Your task to perform on an android device: allow notifications from all sites in the chrome app Image 0: 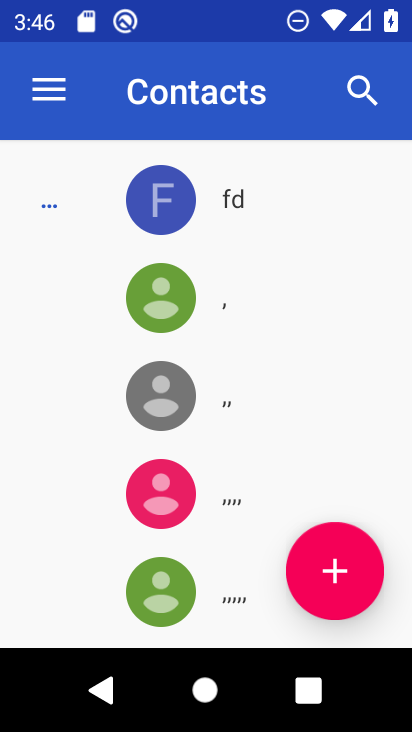
Step 0: press home button
Your task to perform on an android device: allow notifications from all sites in the chrome app Image 1: 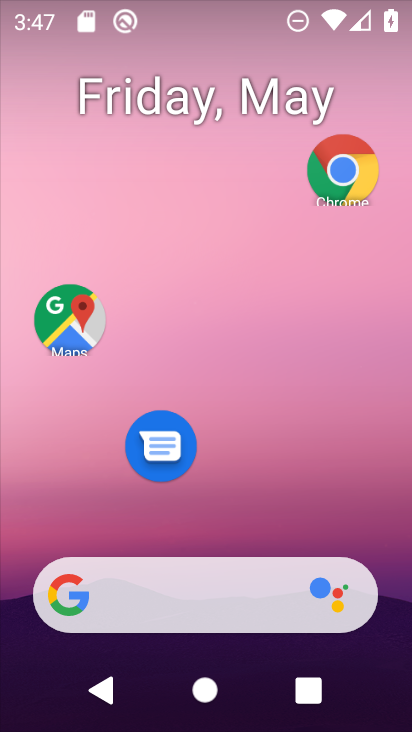
Step 1: drag from (265, 526) to (297, 12)
Your task to perform on an android device: allow notifications from all sites in the chrome app Image 2: 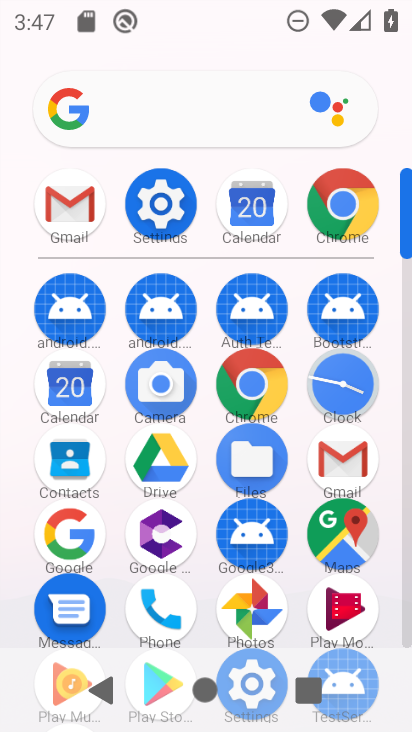
Step 2: click (245, 377)
Your task to perform on an android device: allow notifications from all sites in the chrome app Image 3: 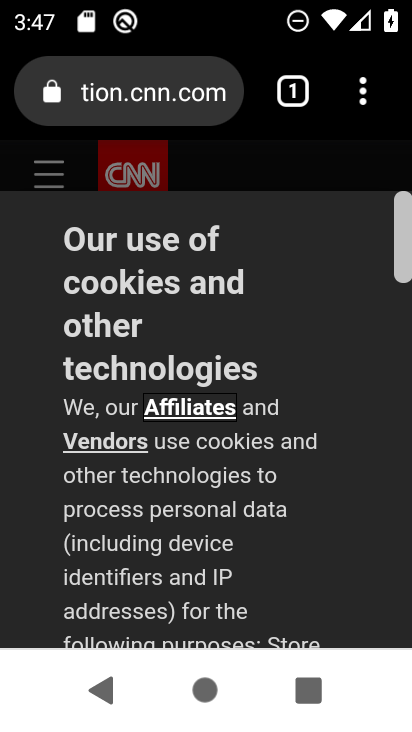
Step 3: drag from (356, 104) to (109, 471)
Your task to perform on an android device: allow notifications from all sites in the chrome app Image 4: 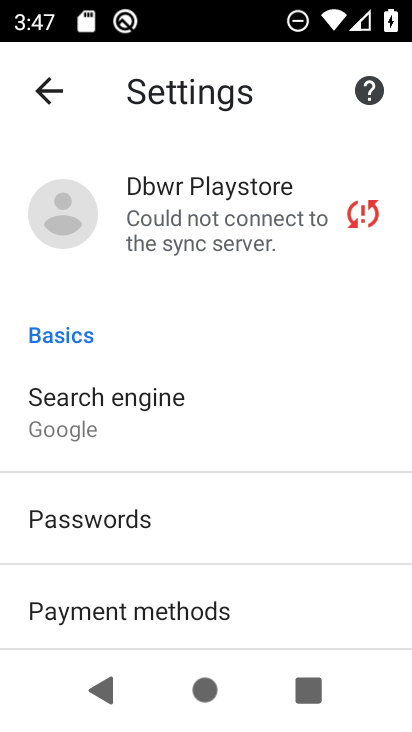
Step 4: drag from (240, 572) to (273, 242)
Your task to perform on an android device: allow notifications from all sites in the chrome app Image 5: 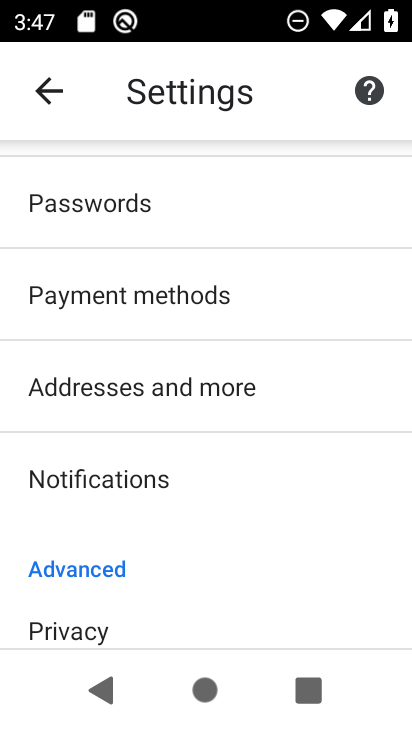
Step 5: drag from (248, 587) to (292, 222)
Your task to perform on an android device: allow notifications from all sites in the chrome app Image 6: 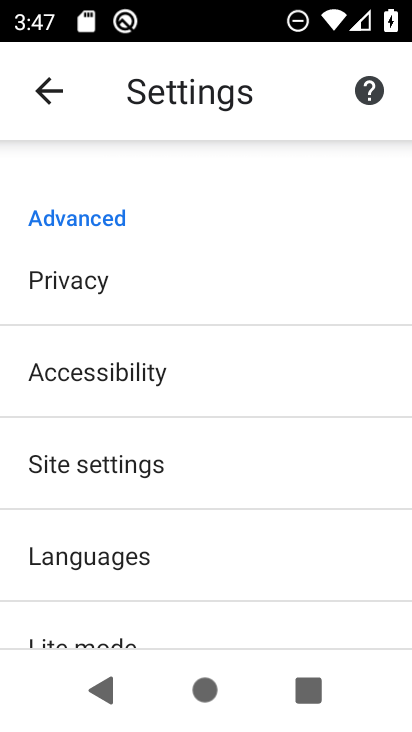
Step 6: click (124, 468)
Your task to perform on an android device: allow notifications from all sites in the chrome app Image 7: 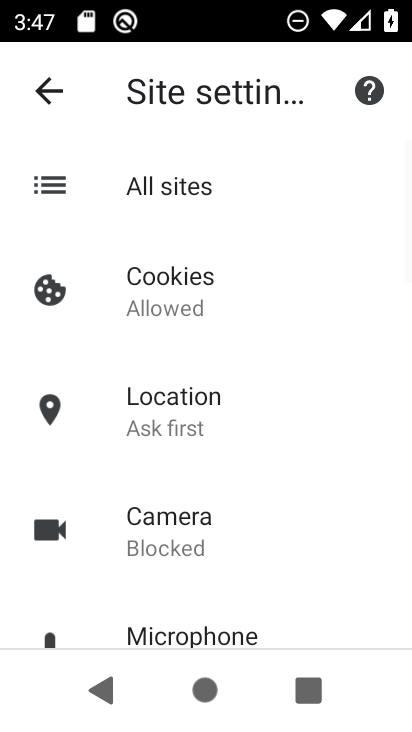
Step 7: click (166, 175)
Your task to perform on an android device: allow notifications from all sites in the chrome app Image 8: 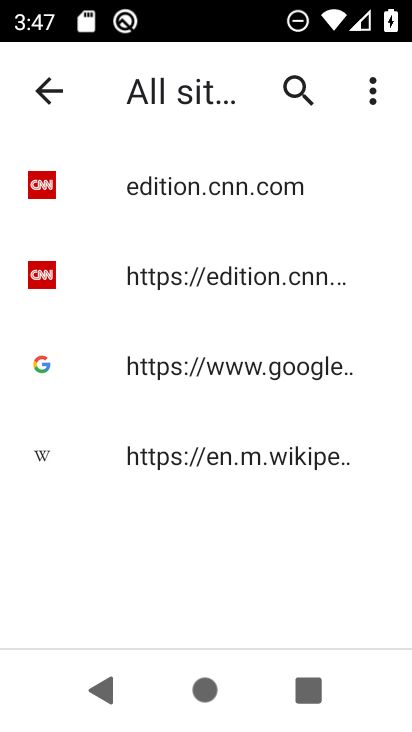
Step 8: click (166, 189)
Your task to perform on an android device: allow notifications from all sites in the chrome app Image 9: 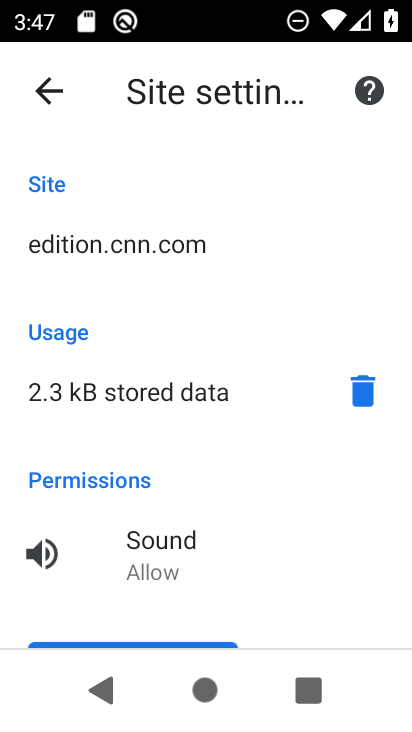
Step 9: drag from (245, 494) to (272, 262)
Your task to perform on an android device: allow notifications from all sites in the chrome app Image 10: 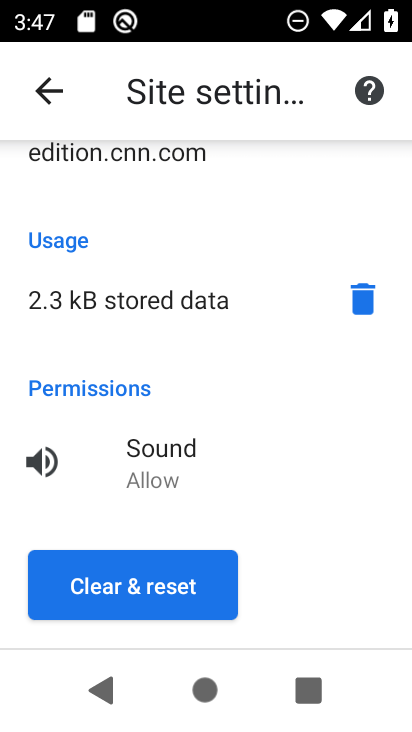
Step 10: drag from (265, 299) to (260, 465)
Your task to perform on an android device: allow notifications from all sites in the chrome app Image 11: 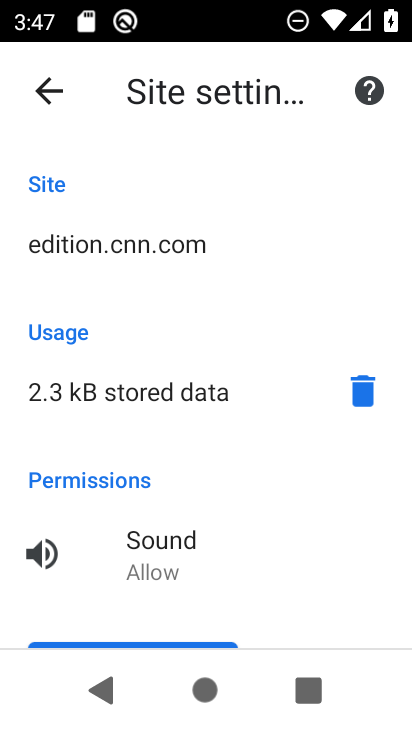
Step 11: click (53, 91)
Your task to perform on an android device: allow notifications from all sites in the chrome app Image 12: 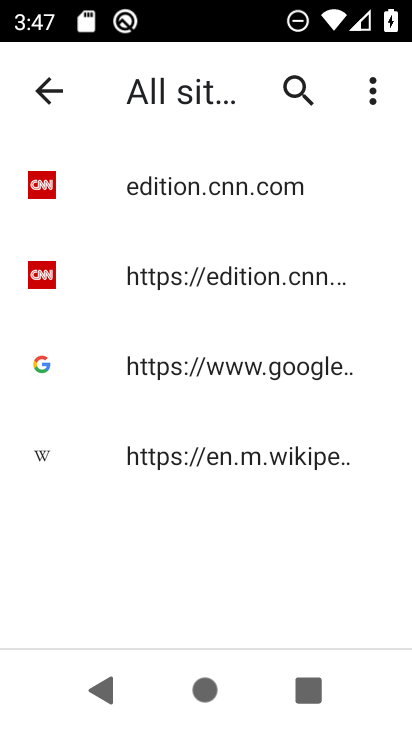
Step 12: click (222, 462)
Your task to perform on an android device: allow notifications from all sites in the chrome app Image 13: 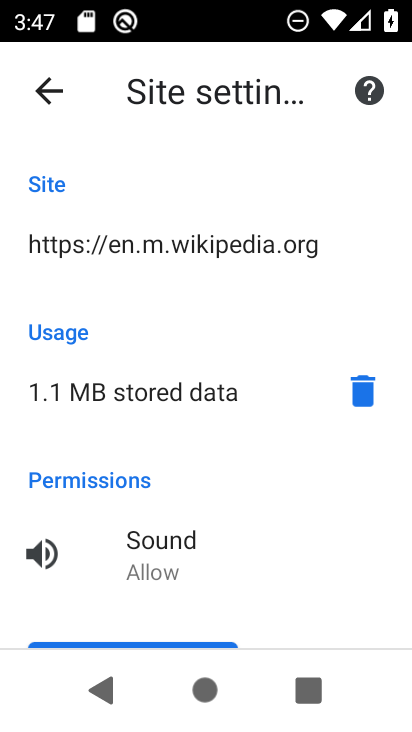
Step 13: click (51, 88)
Your task to perform on an android device: allow notifications from all sites in the chrome app Image 14: 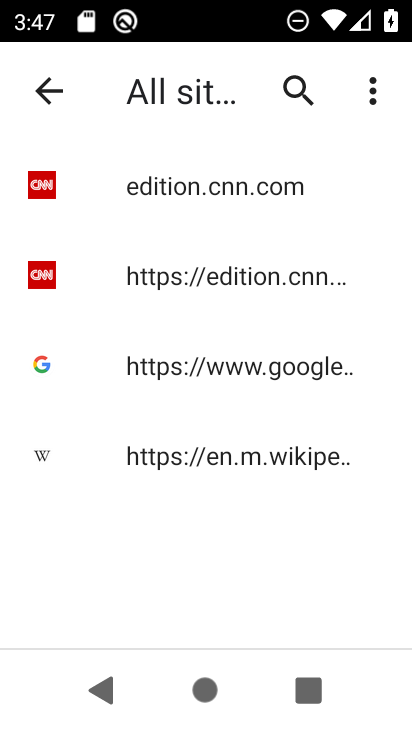
Step 14: click (200, 363)
Your task to perform on an android device: allow notifications from all sites in the chrome app Image 15: 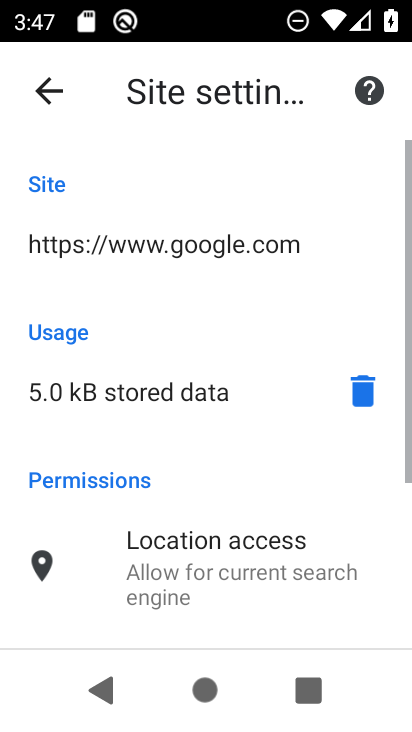
Step 15: task complete